Your task to perform on an android device: Search for "logitech g933" on amazon.com, select the first entry, add it to the cart, then select checkout. Image 0: 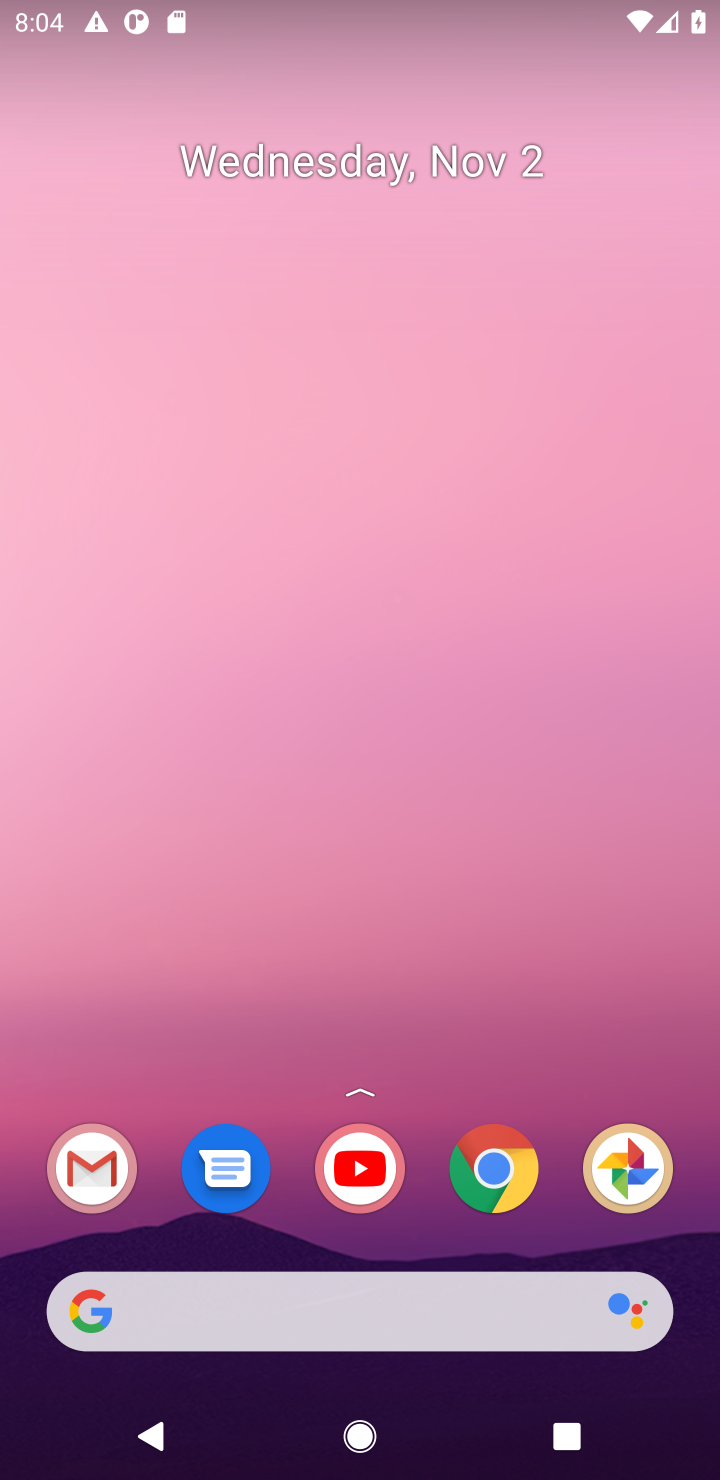
Step 0: click (500, 1167)
Your task to perform on an android device: Search for "logitech g933" on amazon.com, select the first entry, add it to the cart, then select checkout. Image 1: 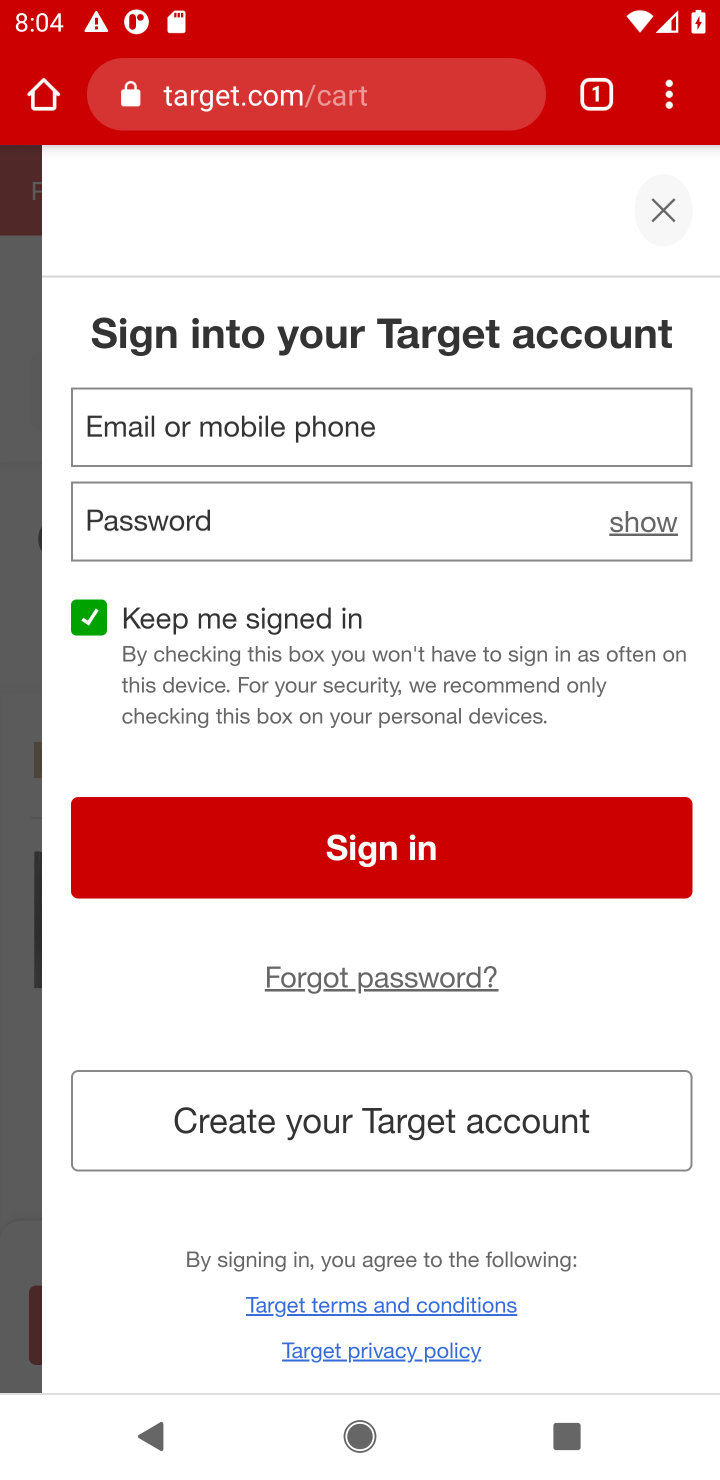
Step 1: click (372, 108)
Your task to perform on an android device: Search for "logitech g933" on amazon.com, select the first entry, add it to the cart, then select checkout. Image 2: 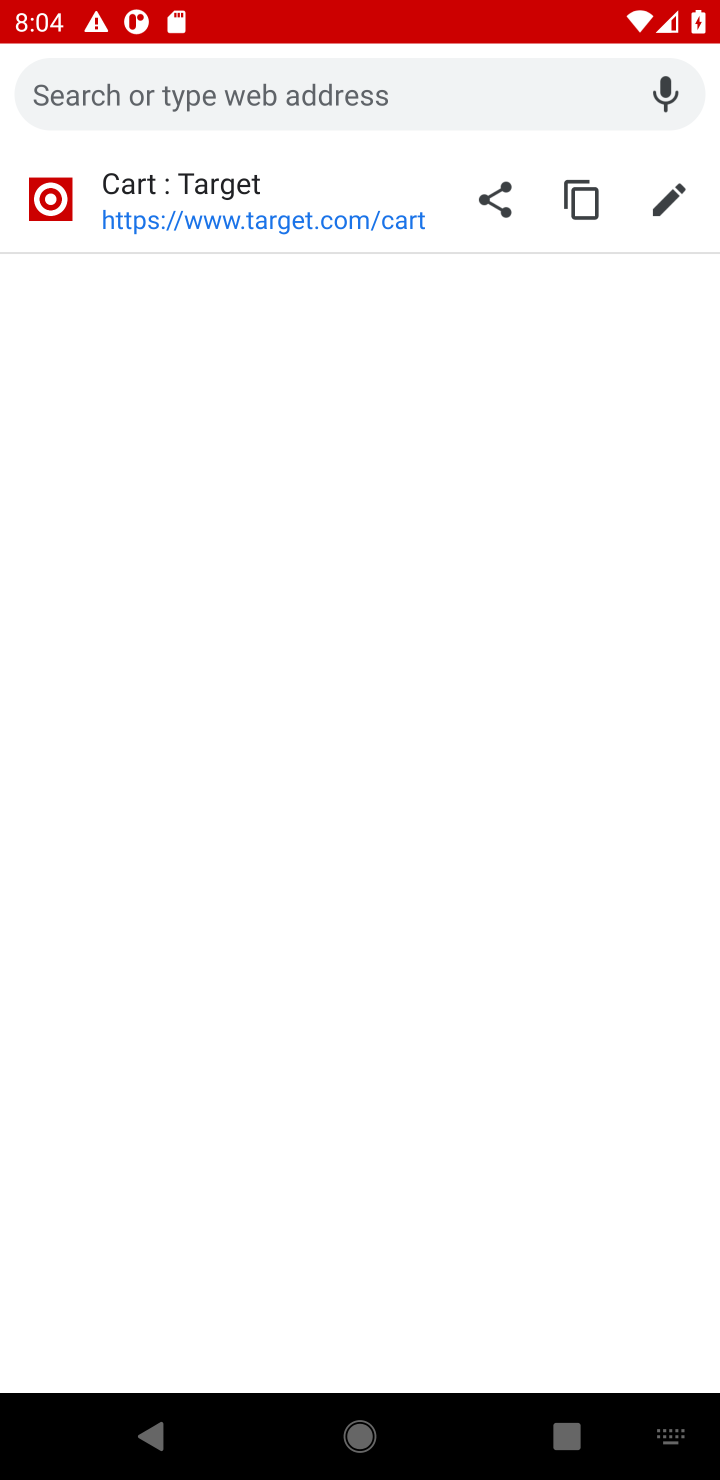
Step 2: type "amazon.com"
Your task to perform on an android device: Search for "logitech g933" on amazon.com, select the first entry, add it to the cart, then select checkout. Image 3: 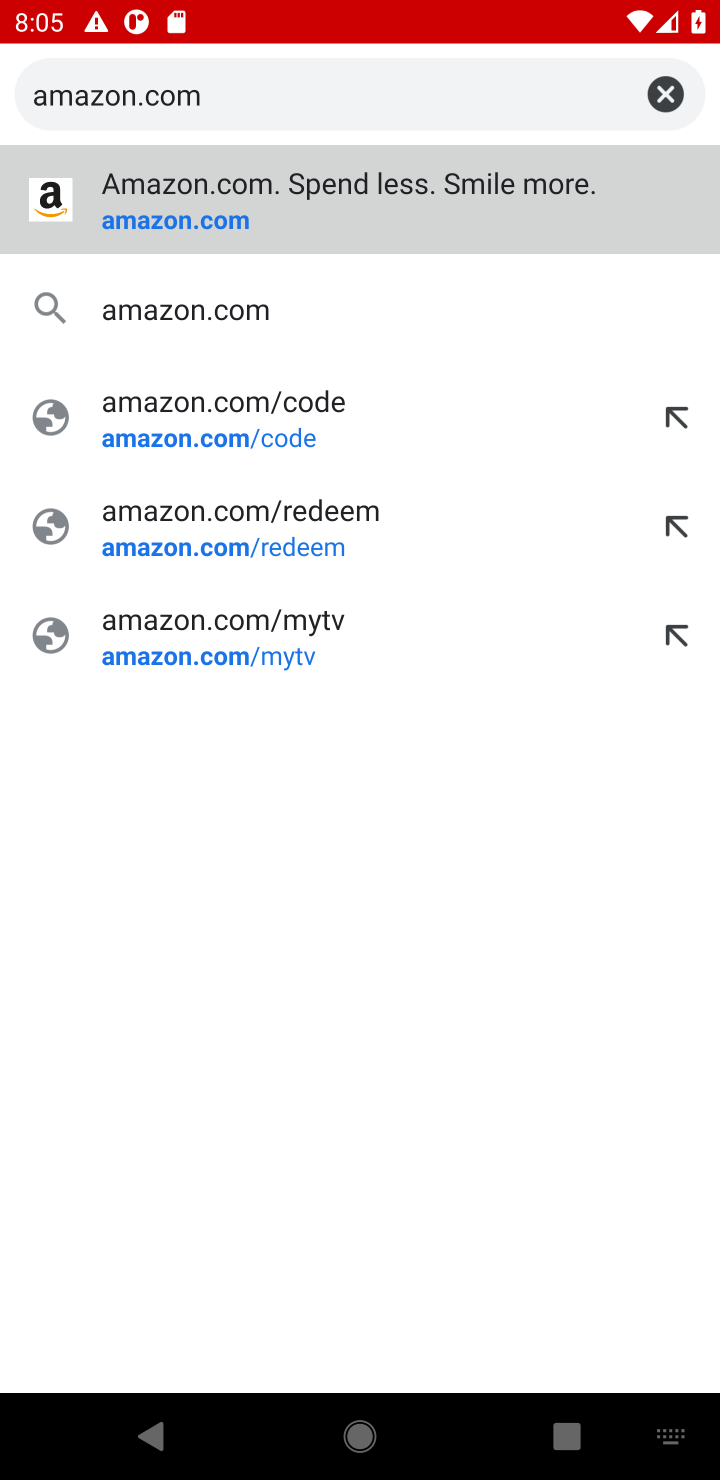
Step 3: click (155, 311)
Your task to perform on an android device: Search for "logitech g933" on amazon.com, select the first entry, add it to the cart, then select checkout. Image 4: 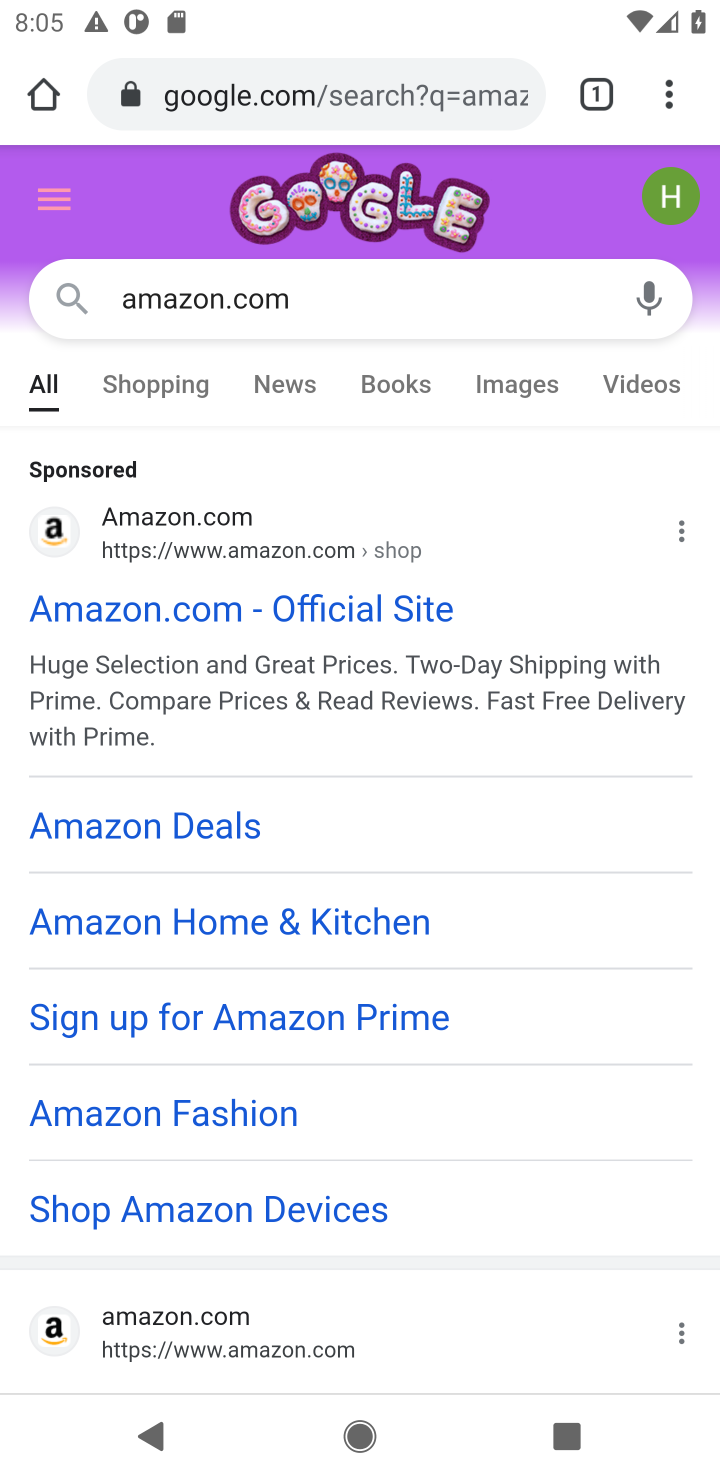
Step 4: click (360, 624)
Your task to perform on an android device: Search for "logitech g933" on amazon.com, select the first entry, add it to the cart, then select checkout. Image 5: 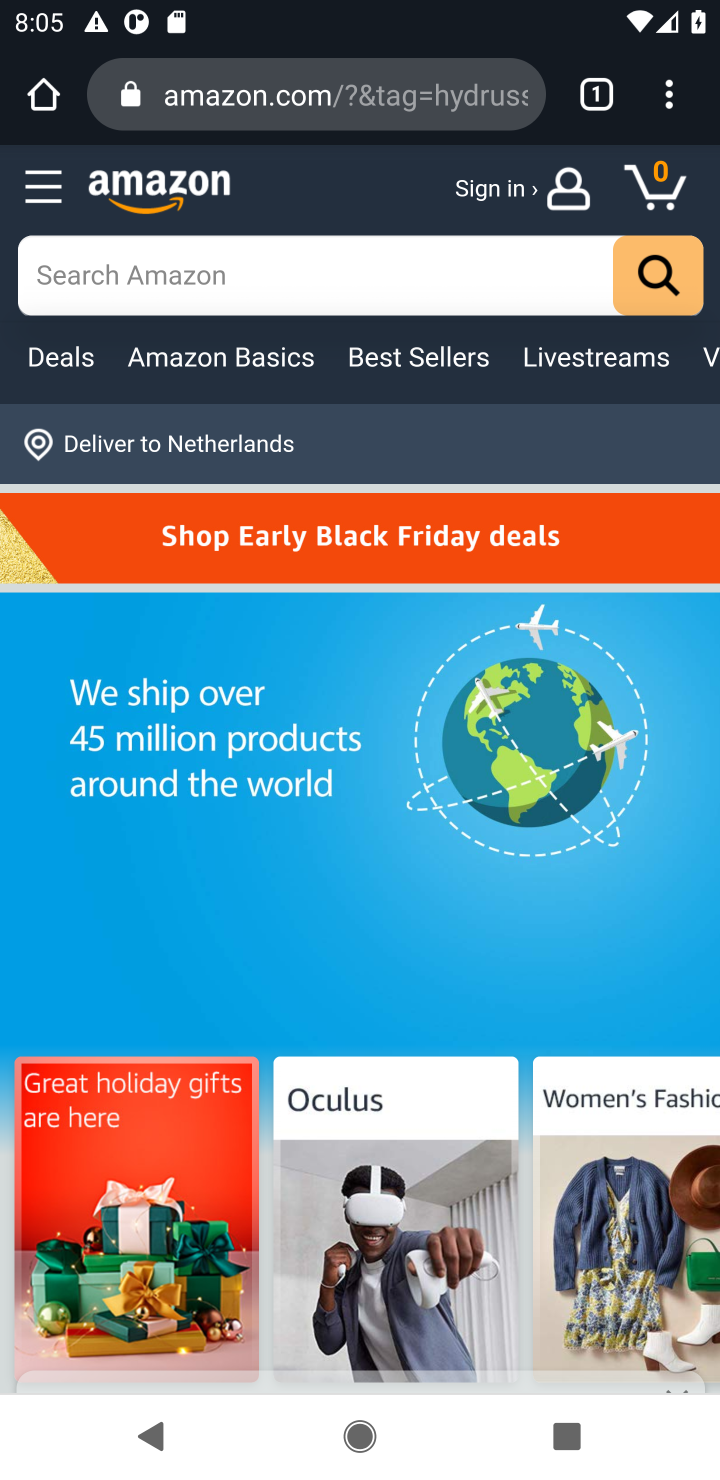
Step 5: click (444, 281)
Your task to perform on an android device: Search for "logitech g933" on amazon.com, select the first entry, add it to the cart, then select checkout. Image 6: 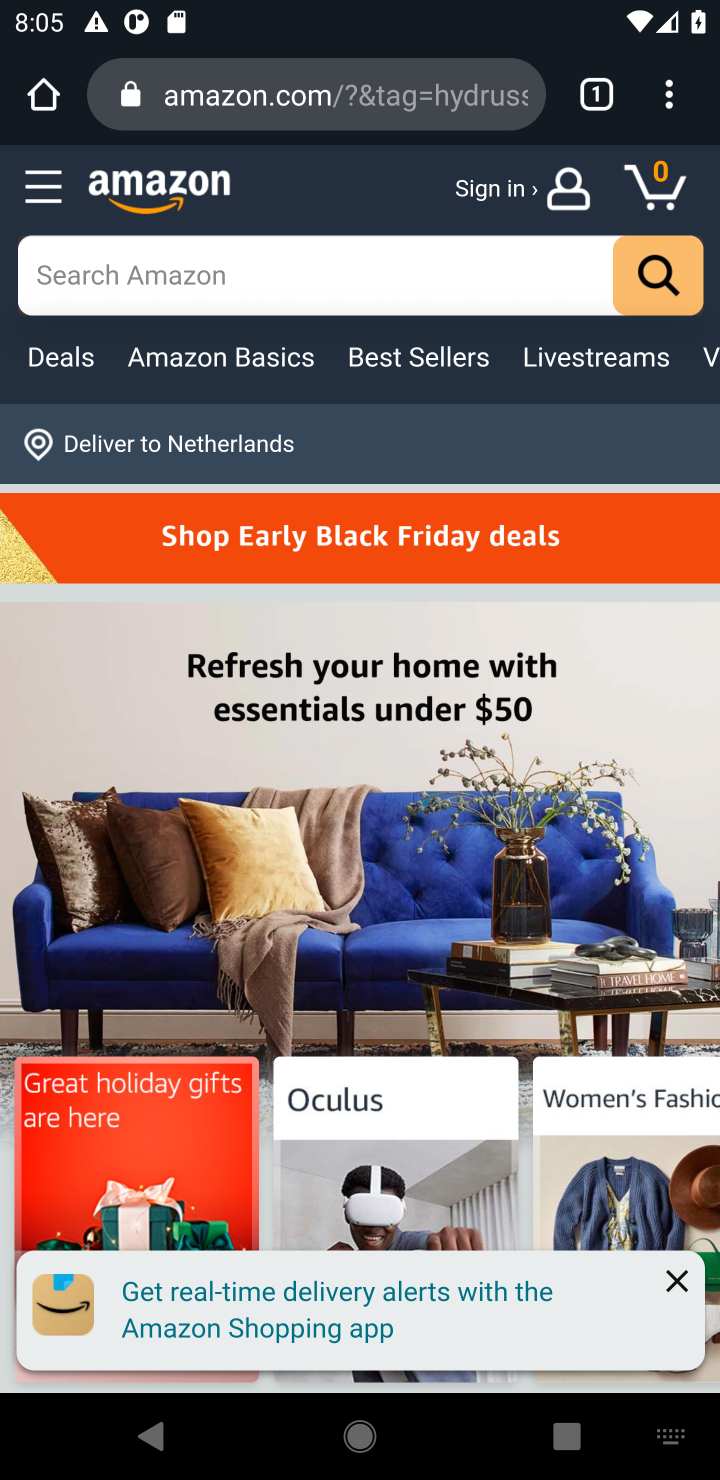
Step 6: type "logitech g933"
Your task to perform on an android device: Search for "logitech g933" on amazon.com, select the first entry, add it to the cart, then select checkout. Image 7: 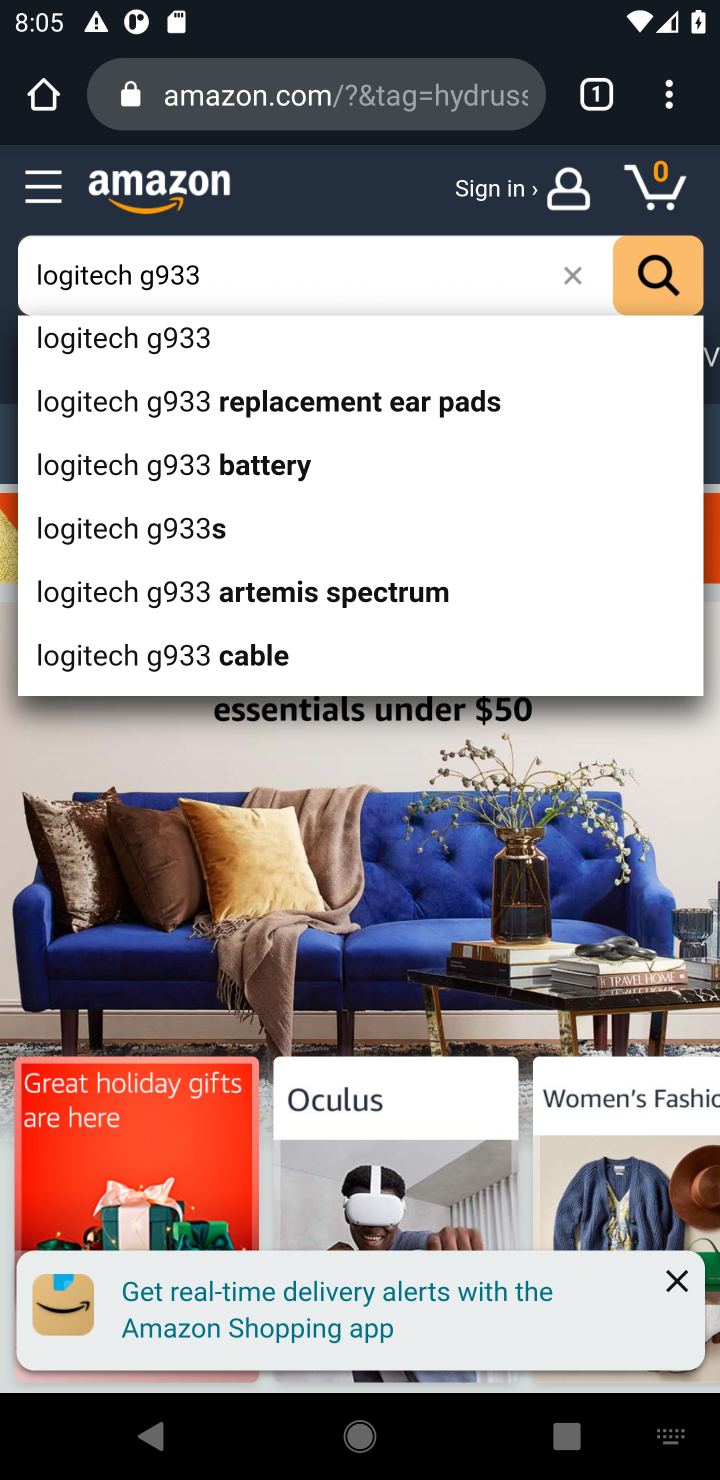
Step 7: click (198, 340)
Your task to perform on an android device: Search for "logitech g933" on amazon.com, select the first entry, add it to the cart, then select checkout. Image 8: 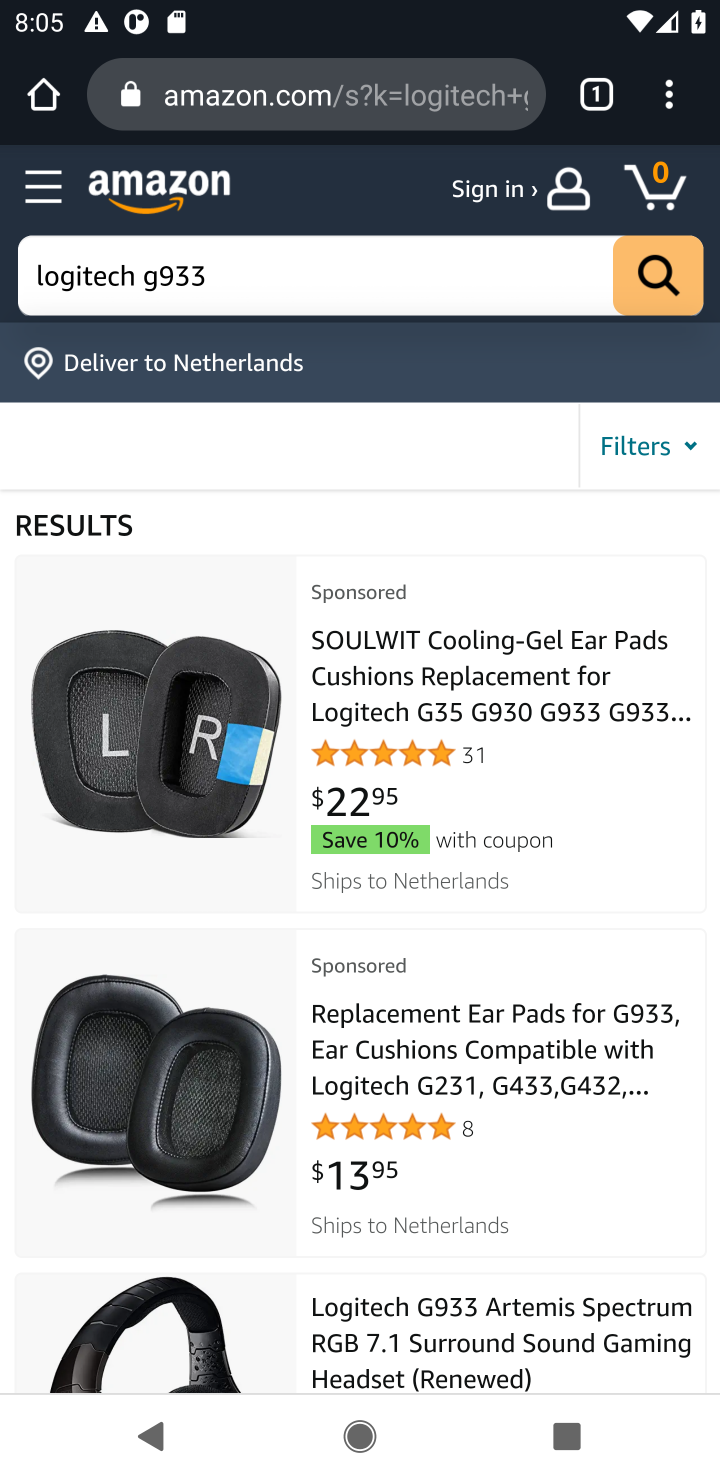
Step 8: click (429, 656)
Your task to perform on an android device: Search for "logitech g933" on amazon.com, select the first entry, add it to the cart, then select checkout. Image 9: 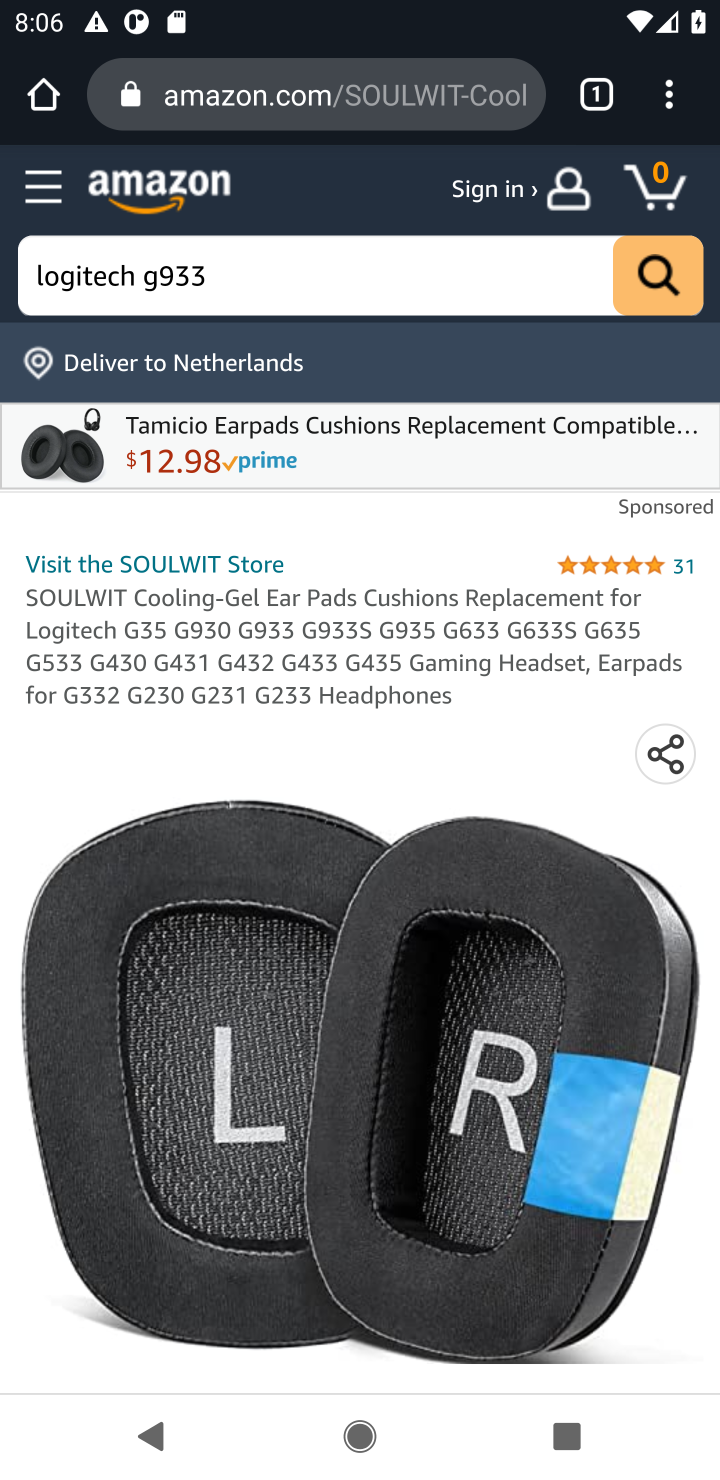
Step 9: drag from (422, 1159) to (509, 598)
Your task to perform on an android device: Search for "logitech g933" on amazon.com, select the first entry, add it to the cart, then select checkout. Image 10: 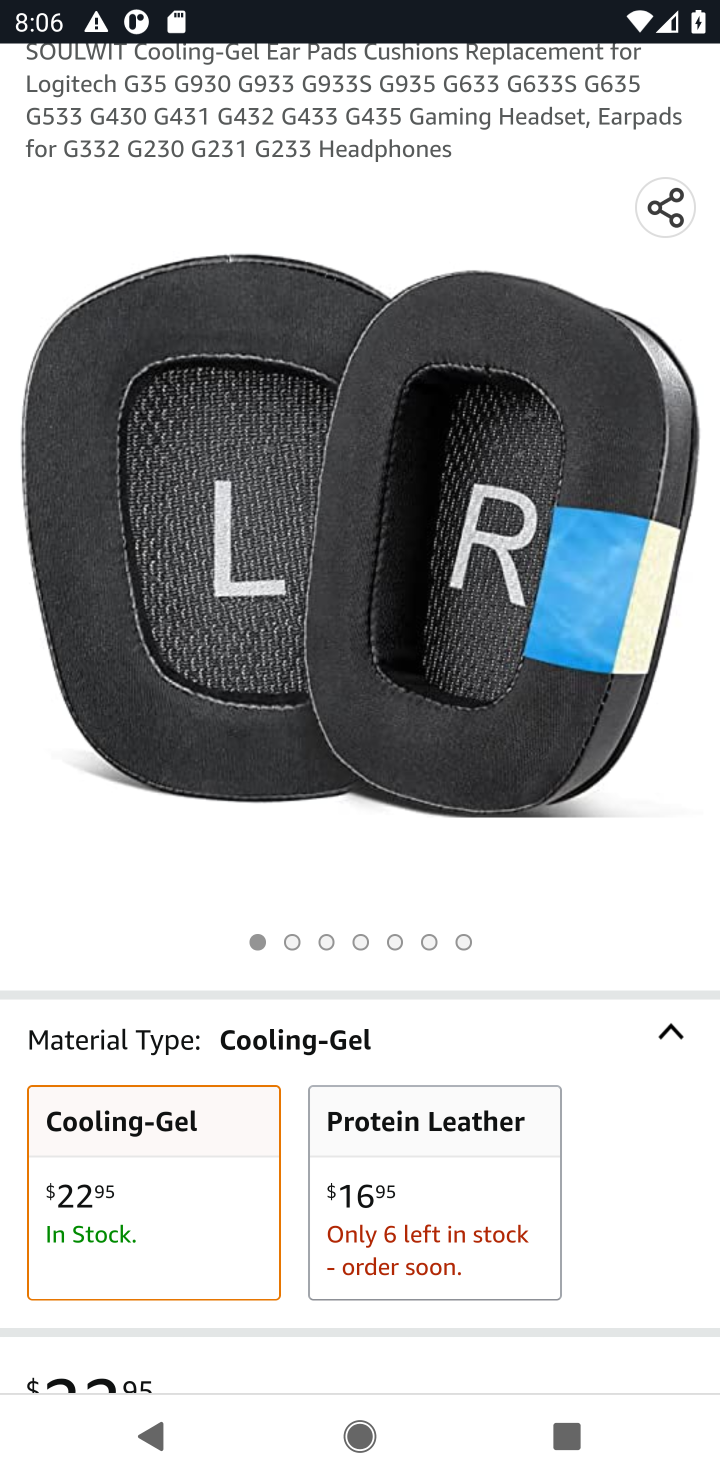
Step 10: drag from (419, 853) to (535, 174)
Your task to perform on an android device: Search for "logitech g933" on amazon.com, select the first entry, add it to the cart, then select checkout. Image 11: 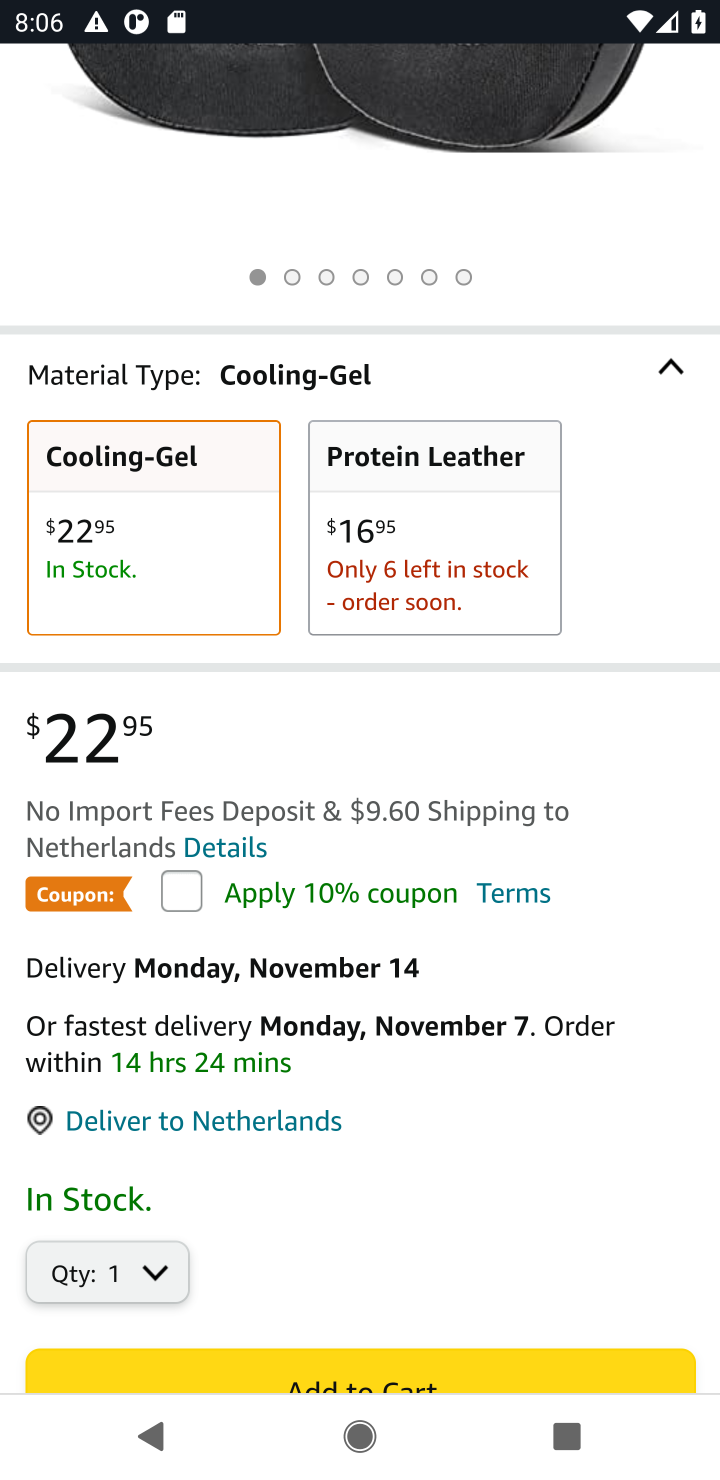
Step 11: drag from (364, 1217) to (462, 658)
Your task to perform on an android device: Search for "logitech g933" on amazon.com, select the first entry, add it to the cart, then select checkout. Image 12: 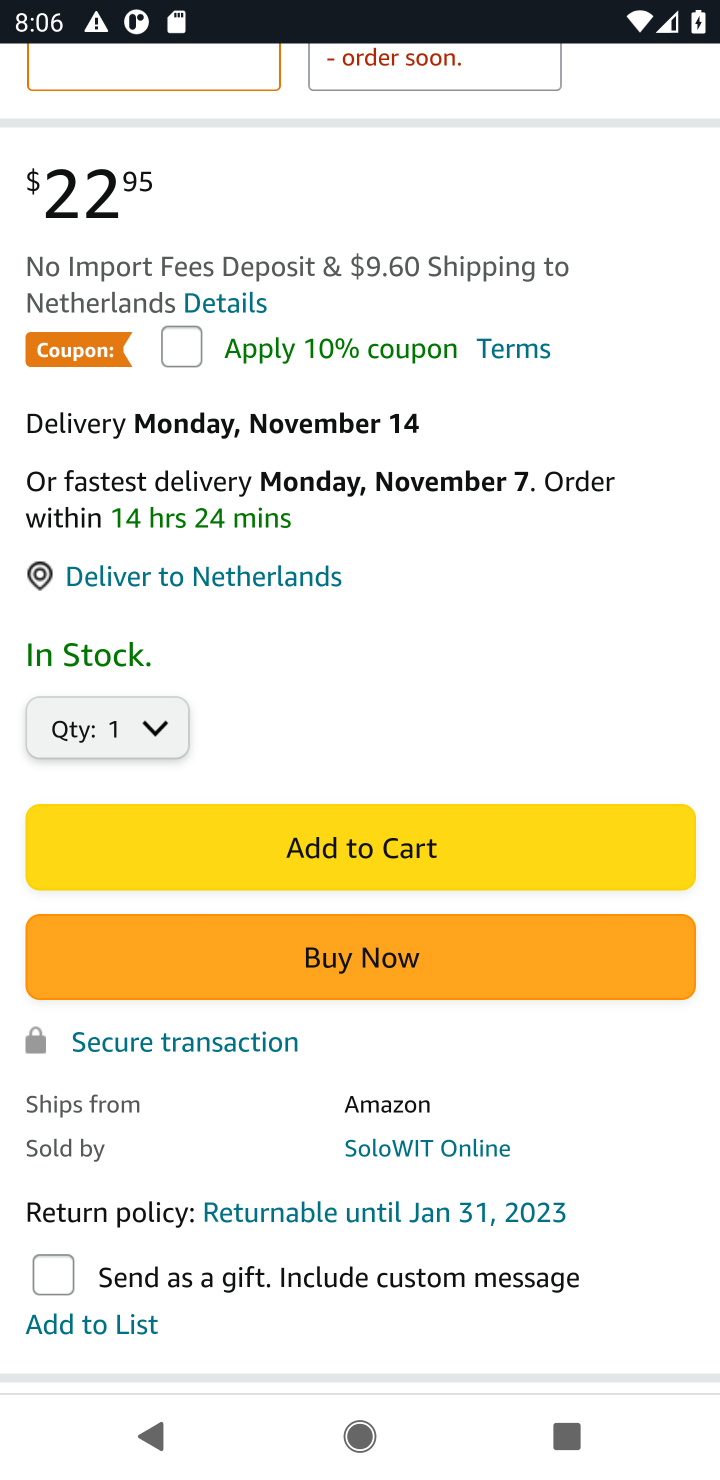
Step 12: click (351, 847)
Your task to perform on an android device: Search for "logitech g933" on amazon.com, select the first entry, add it to the cart, then select checkout. Image 13: 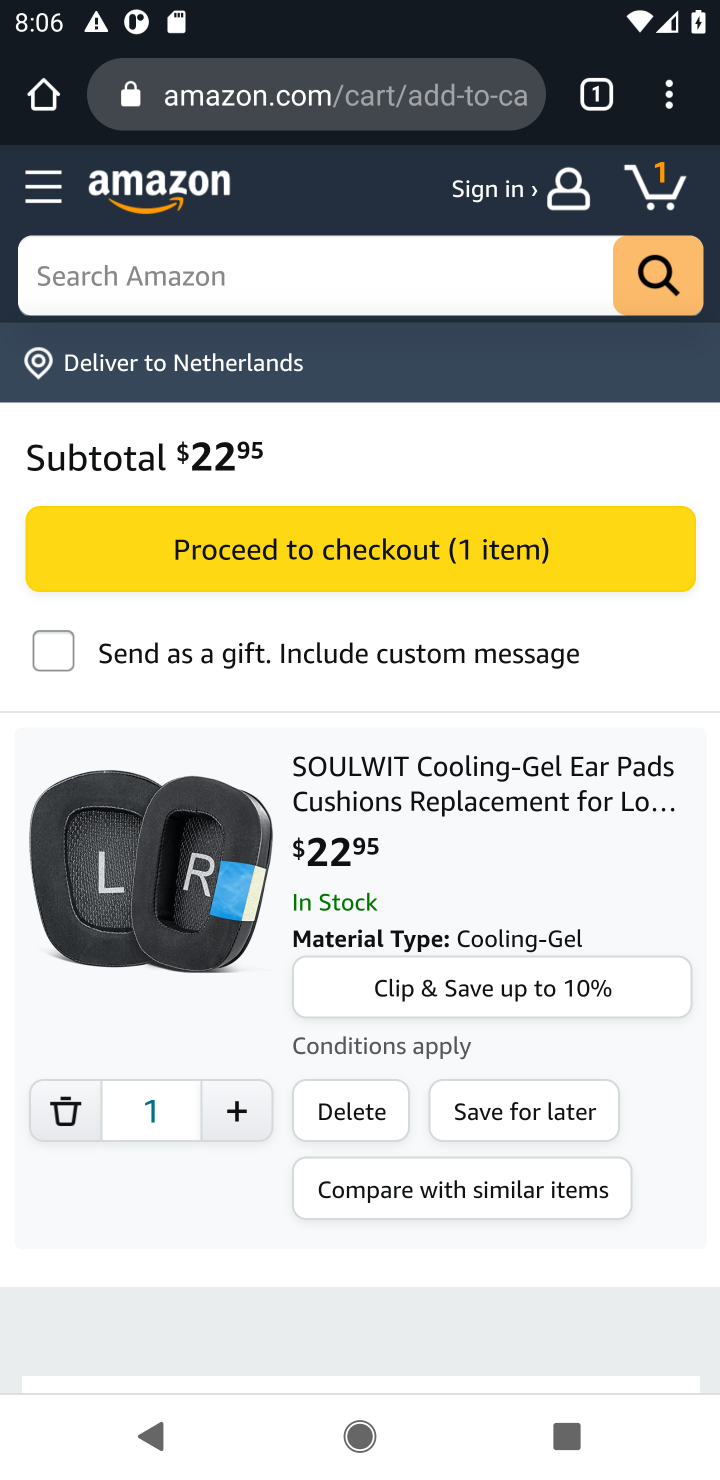
Step 13: click (434, 538)
Your task to perform on an android device: Search for "logitech g933" on amazon.com, select the first entry, add it to the cart, then select checkout. Image 14: 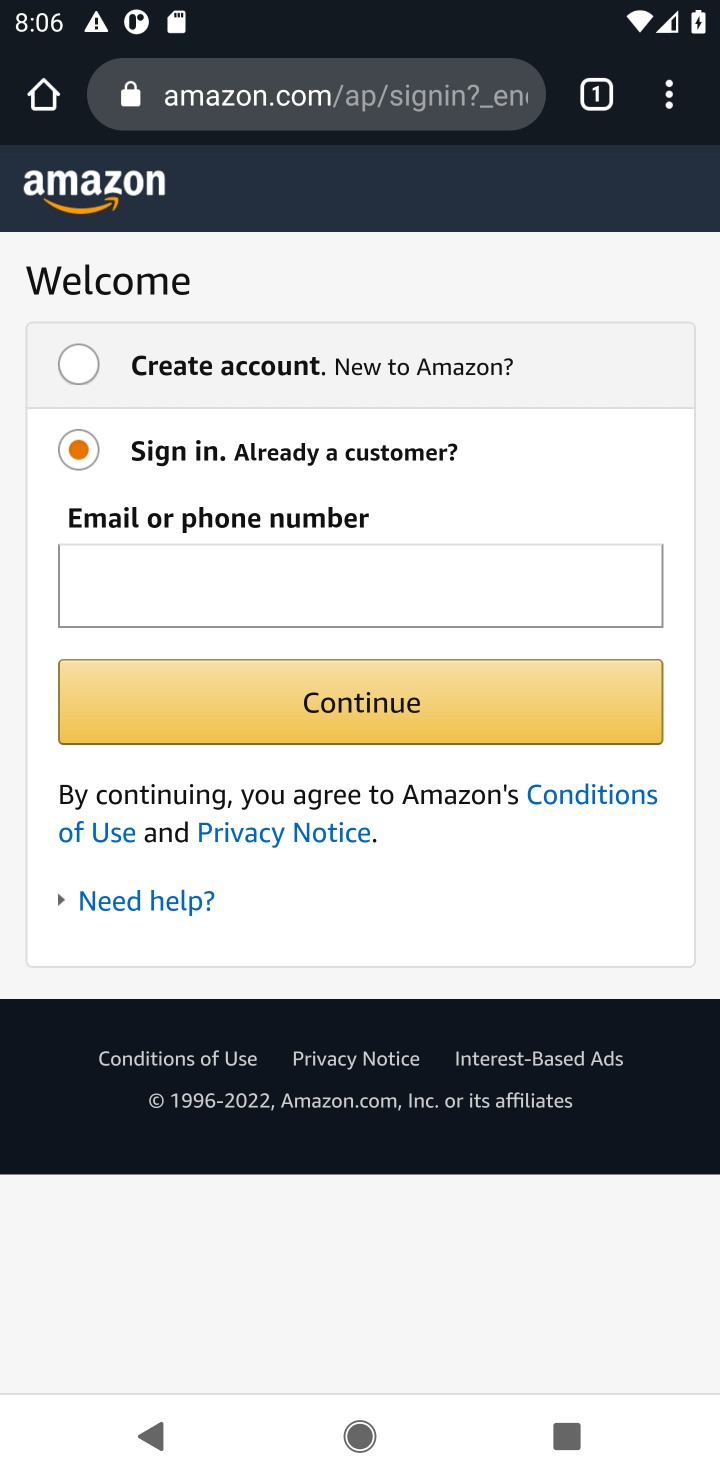
Step 14: task complete